Your task to perform on an android device: set an alarm Image 0: 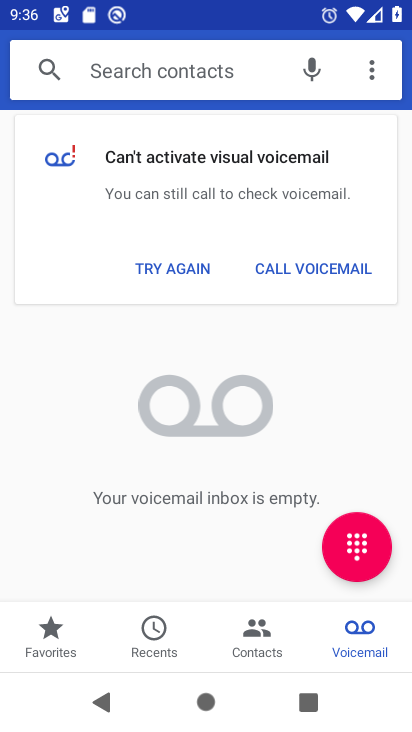
Step 0: press home button
Your task to perform on an android device: set an alarm Image 1: 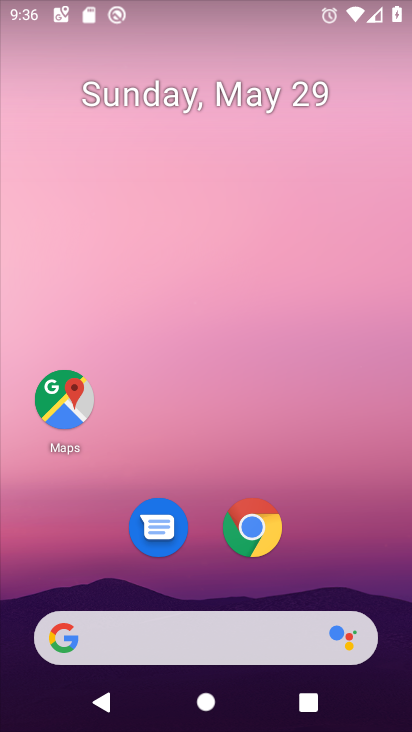
Step 1: drag from (199, 590) to (254, 74)
Your task to perform on an android device: set an alarm Image 2: 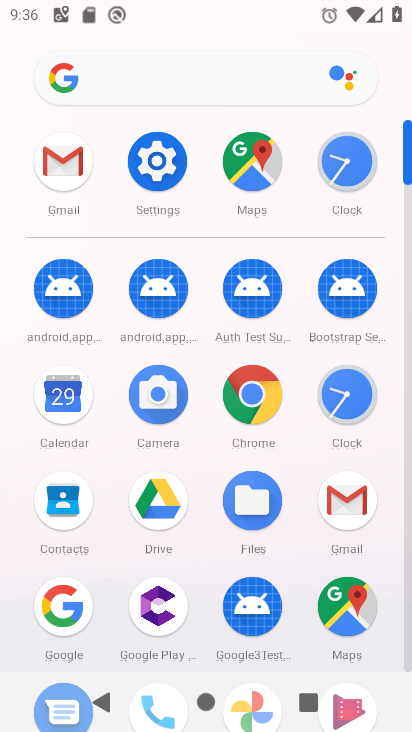
Step 2: click (348, 150)
Your task to perform on an android device: set an alarm Image 3: 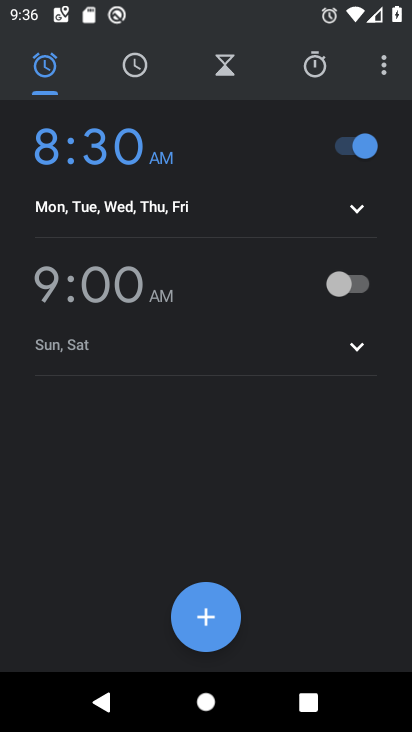
Step 3: click (358, 278)
Your task to perform on an android device: set an alarm Image 4: 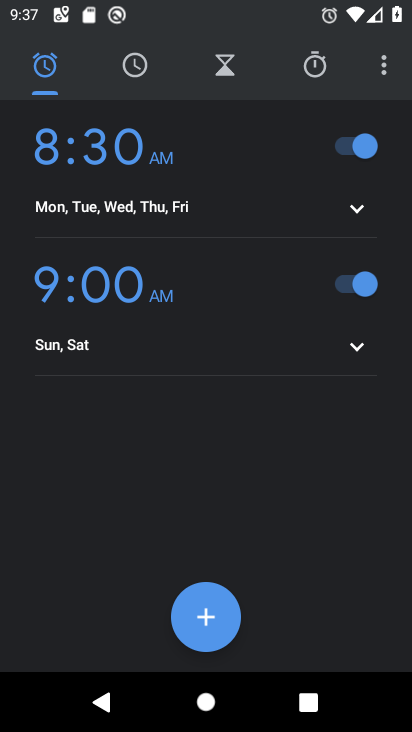
Step 4: task complete